Your task to perform on an android device: Search for asus zenbook on target.com, select the first entry, add it to the cart, then select checkout. Image 0: 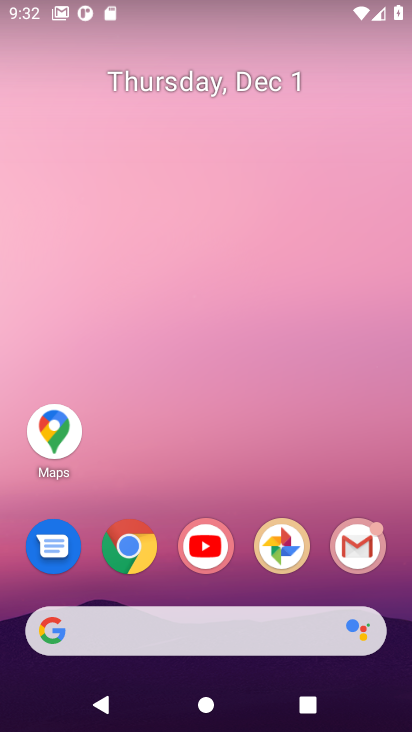
Step 0: click (133, 547)
Your task to perform on an android device: Search for asus zenbook on target.com, select the first entry, add it to the cart, then select checkout. Image 1: 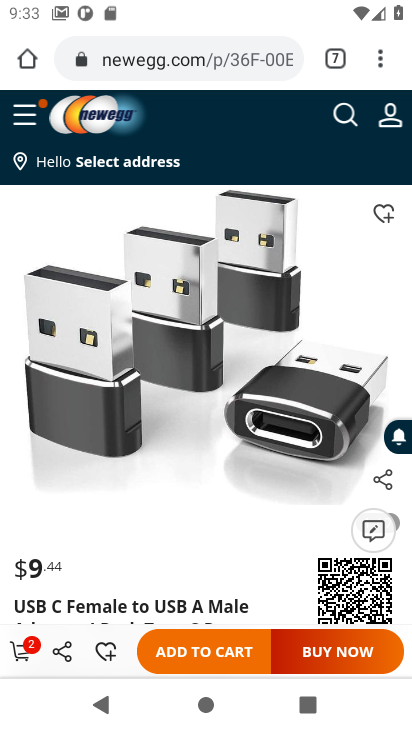
Step 1: click (157, 73)
Your task to perform on an android device: Search for asus zenbook on target.com, select the first entry, add it to the cart, then select checkout. Image 2: 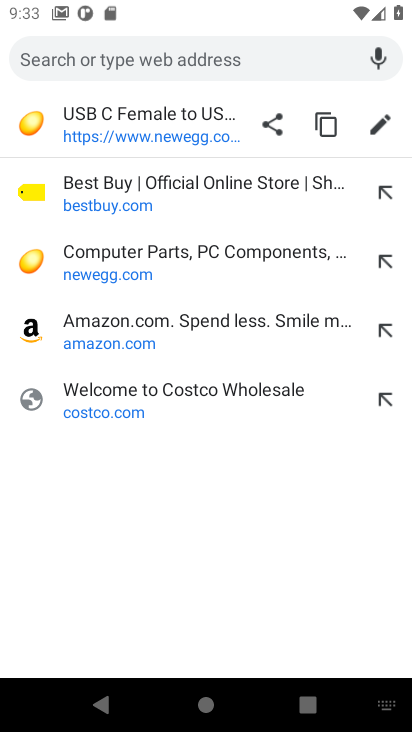
Step 2: type "target.com"
Your task to perform on an android device: Search for asus zenbook on target.com, select the first entry, add it to the cart, then select checkout. Image 3: 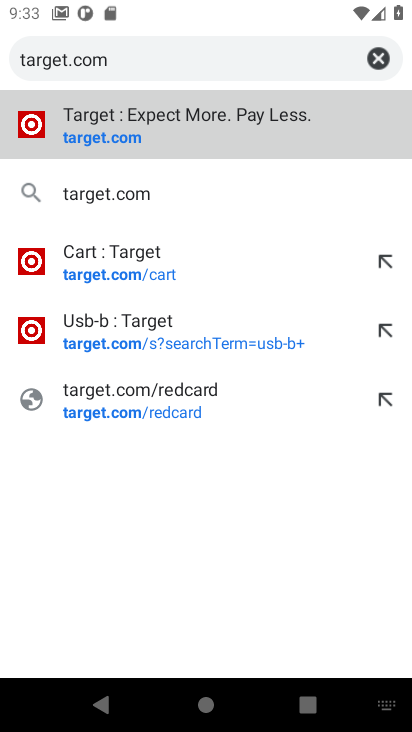
Step 3: click (125, 135)
Your task to perform on an android device: Search for asus zenbook on target.com, select the first entry, add it to the cart, then select checkout. Image 4: 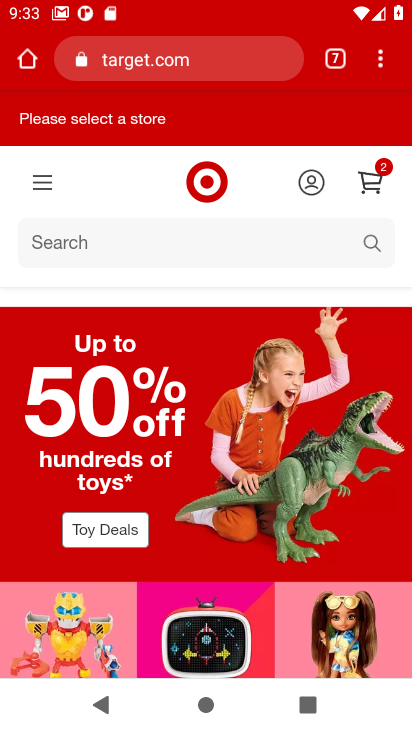
Step 4: click (54, 247)
Your task to perform on an android device: Search for asus zenbook on target.com, select the first entry, add it to the cart, then select checkout. Image 5: 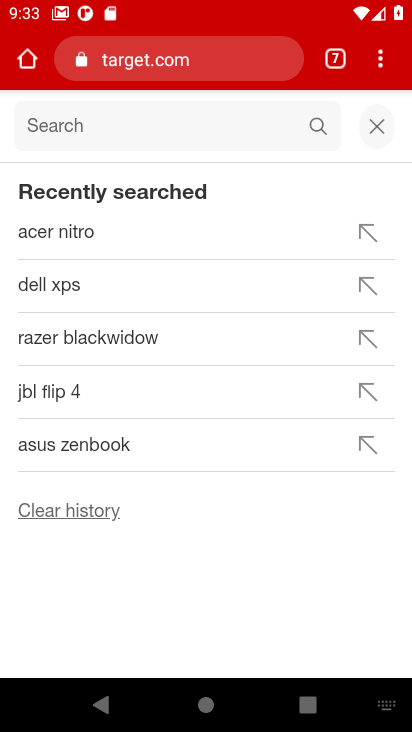
Step 5: type "asus zenbook"
Your task to perform on an android device: Search for asus zenbook on target.com, select the first entry, add it to the cart, then select checkout. Image 6: 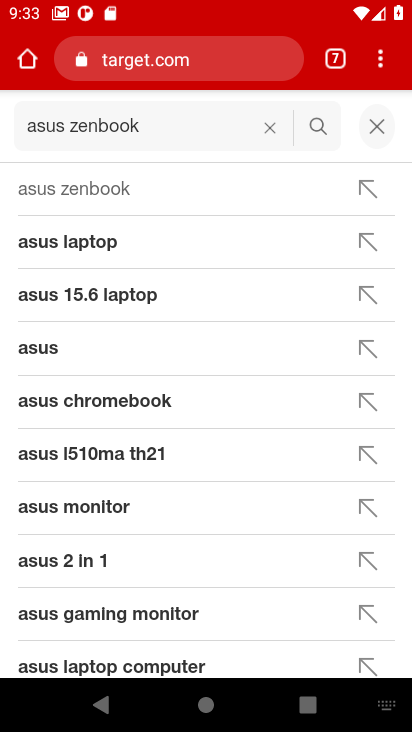
Step 6: click (100, 185)
Your task to perform on an android device: Search for asus zenbook on target.com, select the first entry, add it to the cart, then select checkout. Image 7: 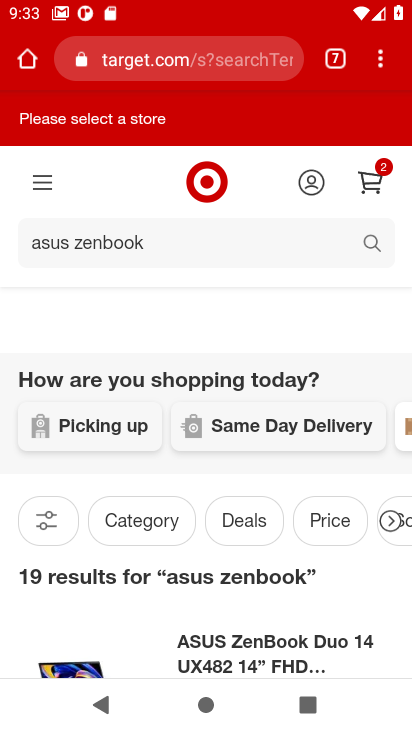
Step 7: drag from (184, 522) to (182, 184)
Your task to perform on an android device: Search for asus zenbook on target.com, select the first entry, add it to the cart, then select checkout. Image 8: 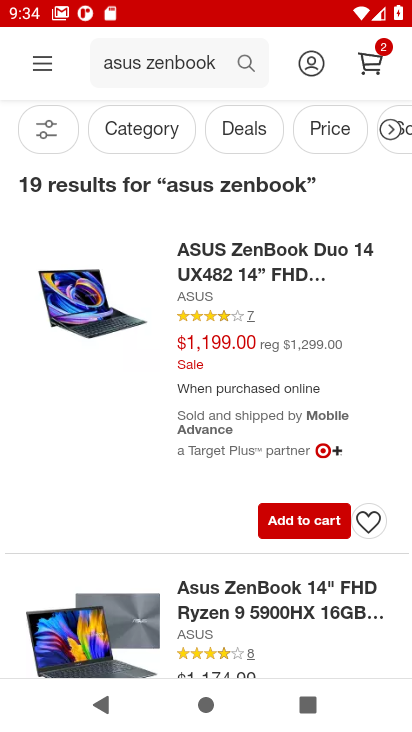
Step 8: click (305, 524)
Your task to perform on an android device: Search for asus zenbook on target.com, select the first entry, add it to the cart, then select checkout. Image 9: 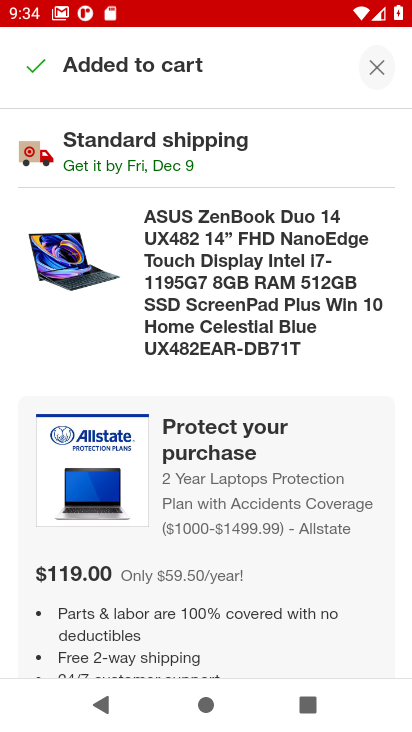
Step 9: click (378, 67)
Your task to perform on an android device: Search for asus zenbook on target.com, select the first entry, add it to the cart, then select checkout. Image 10: 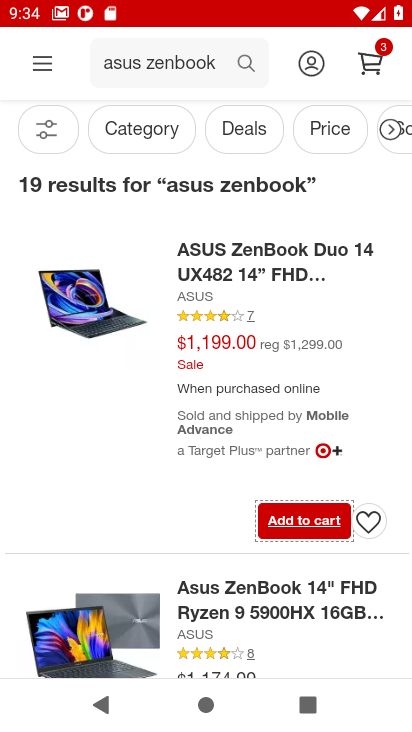
Step 10: click (368, 64)
Your task to perform on an android device: Search for asus zenbook on target.com, select the first entry, add it to the cart, then select checkout. Image 11: 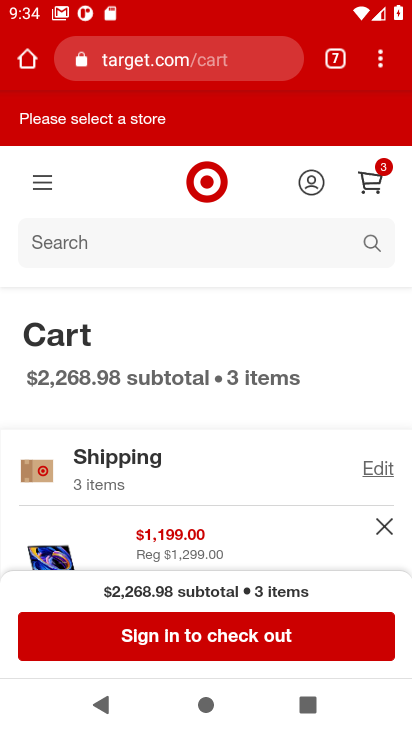
Step 11: click (206, 635)
Your task to perform on an android device: Search for asus zenbook on target.com, select the first entry, add it to the cart, then select checkout. Image 12: 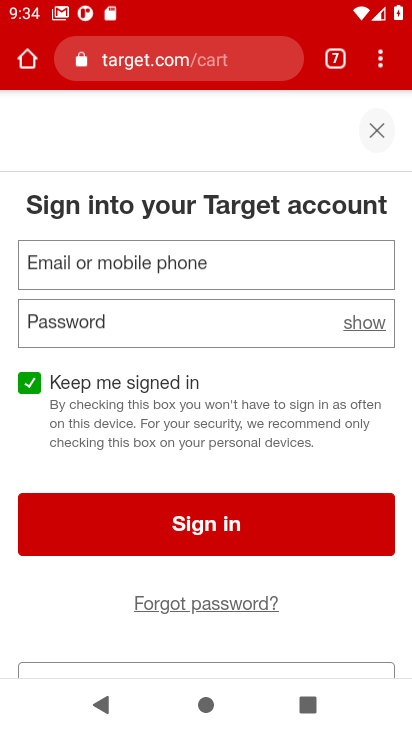
Step 12: task complete